Your task to perform on an android device: Go to CNN.com Image 0: 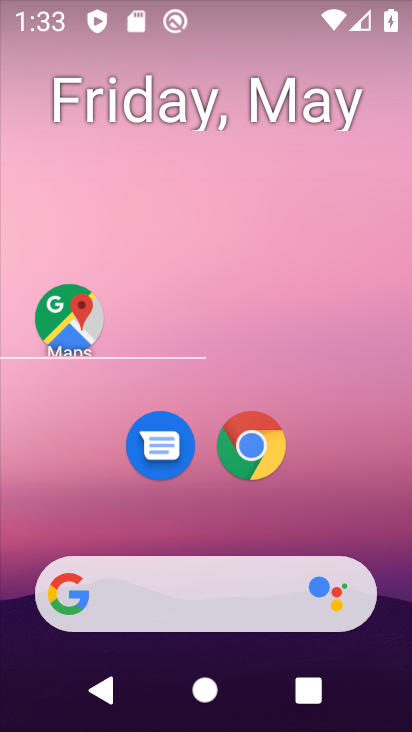
Step 0: press home button
Your task to perform on an android device: Go to CNN.com Image 1: 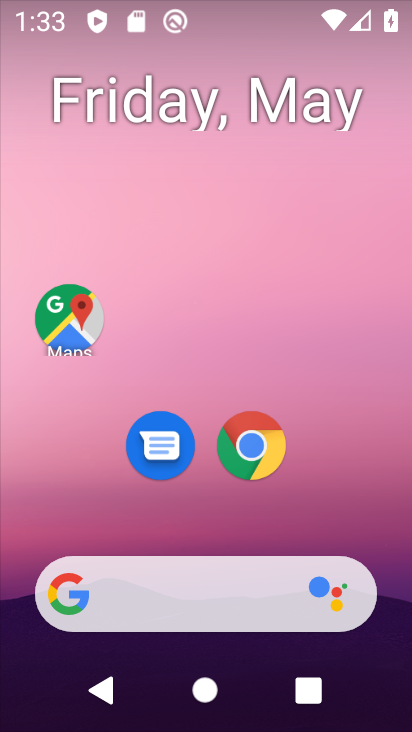
Step 1: click (248, 444)
Your task to perform on an android device: Go to CNN.com Image 2: 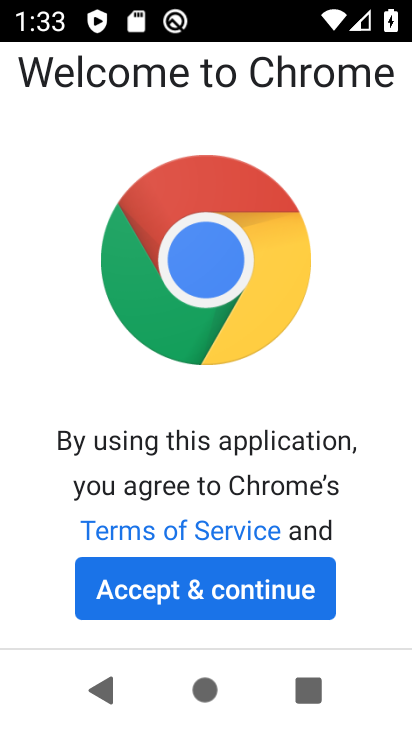
Step 2: click (189, 587)
Your task to perform on an android device: Go to CNN.com Image 3: 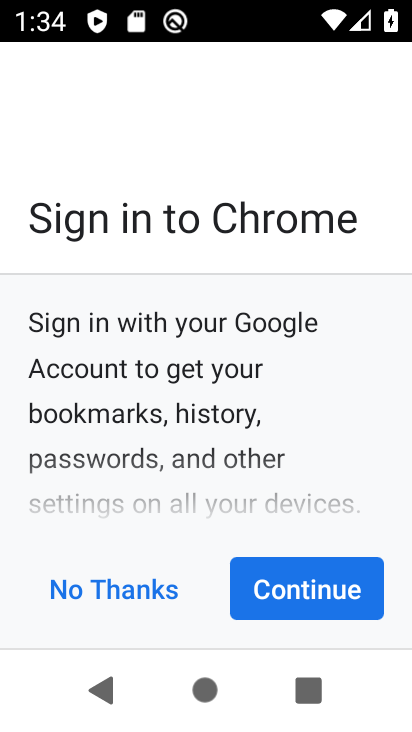
Step 3: click (340, 595)
Your task to perform on an android device: Go to CNN.com Image 4: 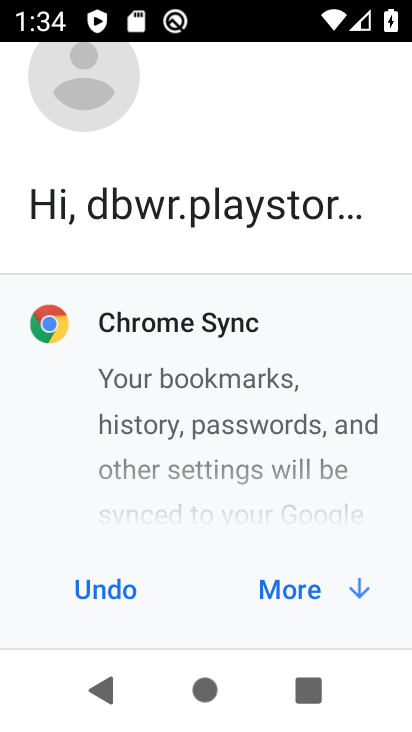
Step 4: click (305, 581)
Your task to perform on an android device: Go to CNN.com Image 5: 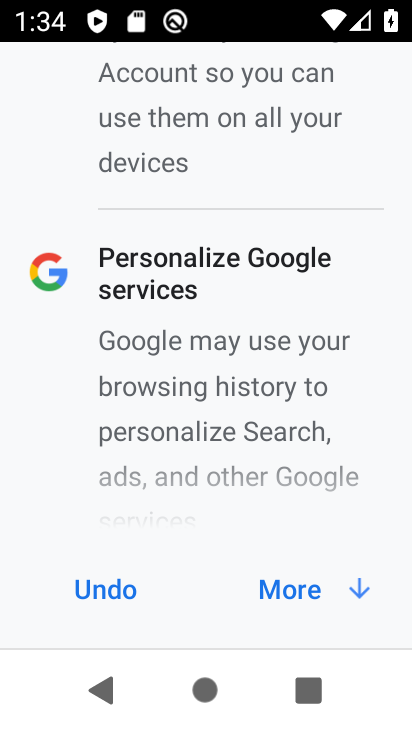
Step 5: click (303, 585)
Your task to perform on an android device: Go to CNN.com Image 6: 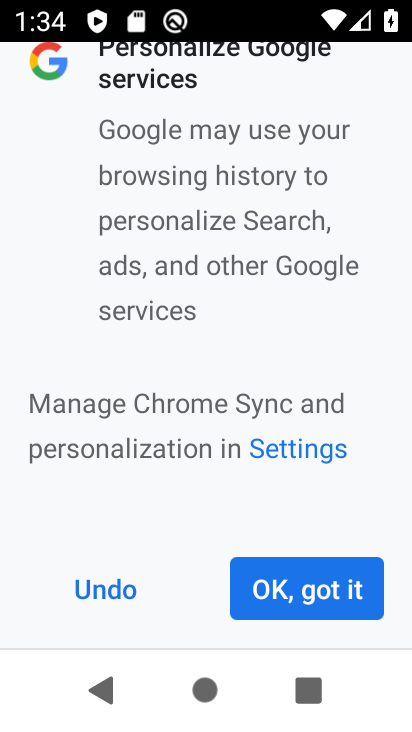
Step 6: click (310, 594)
Your task to perform on an android device: Go to CNN.com Image 7: 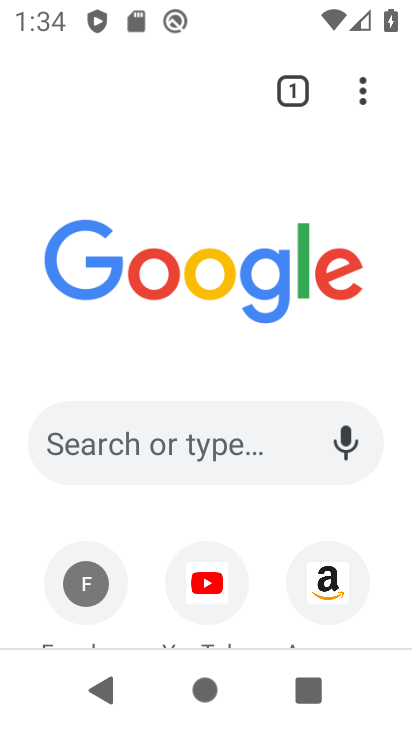
Step 7: click (141, 436)
Your task to perform on an android device: Go to CNN.com Image 8: 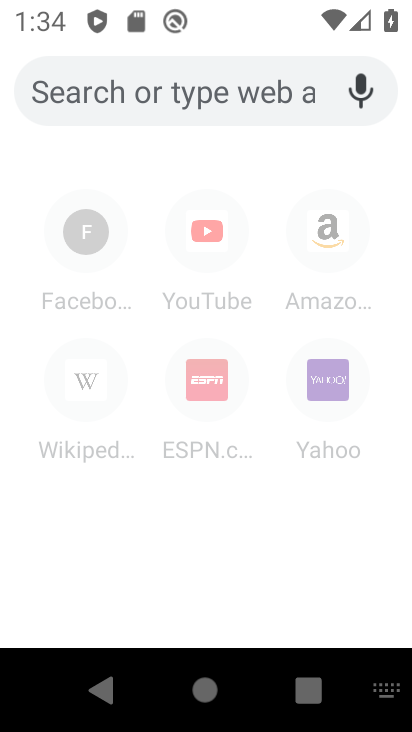
Step 8: type "cnn.com"
Your task to perform on an android device: Go to CNN.com Image 9: 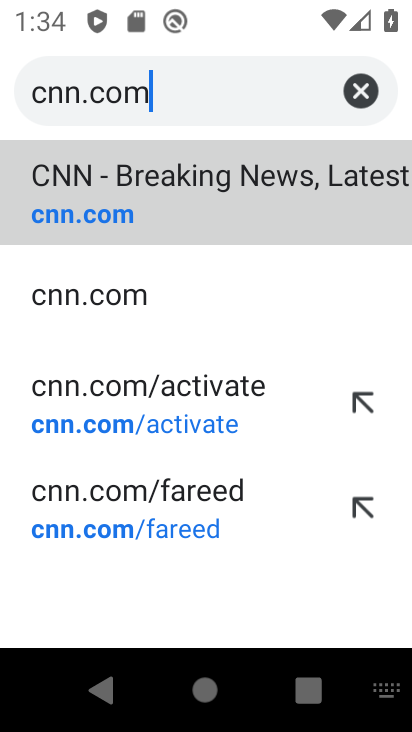
Step 9: click (155, 203)
Your task to perform on an android device: Go to CNN.com Image 10: 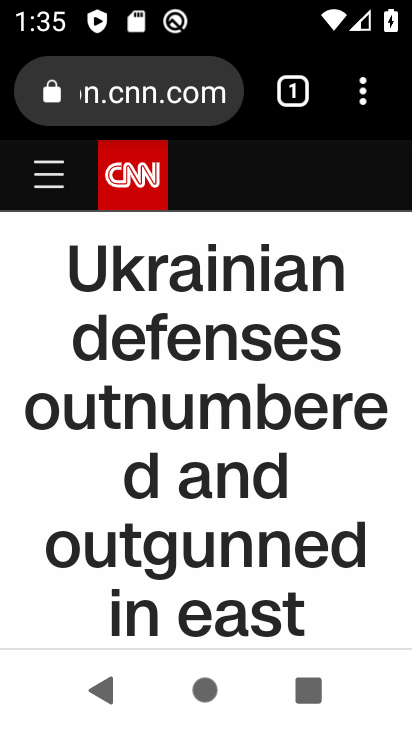
Step 10: drag from (197, 584) to (212, 177)
Your task to perform on an android device: Go to CNN.com Image 11: 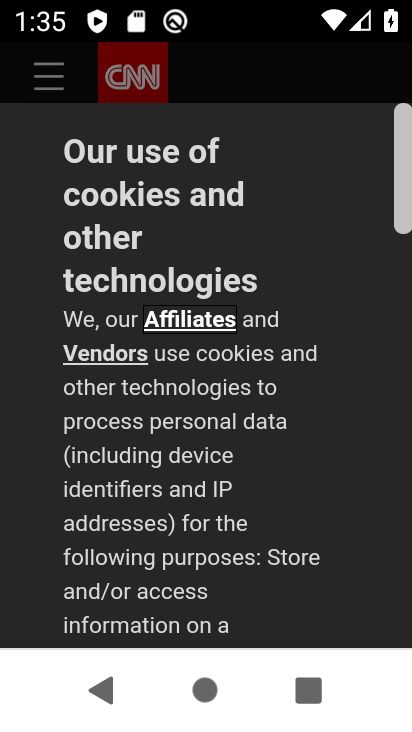
Step 11: drag from (190, 593) to (217, 179)
Your task to perform on an android device: Go to CNN.com Image 12: 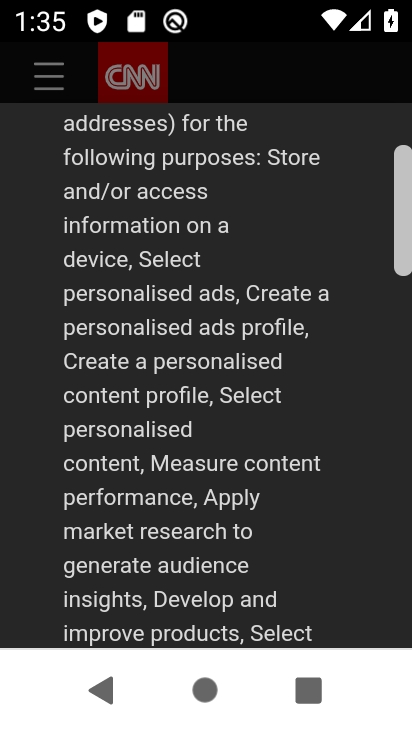
Step 12: drag from (210, 604) to (232, 192)
Your task to perform on an android device: Go to CNN.com Image 13: 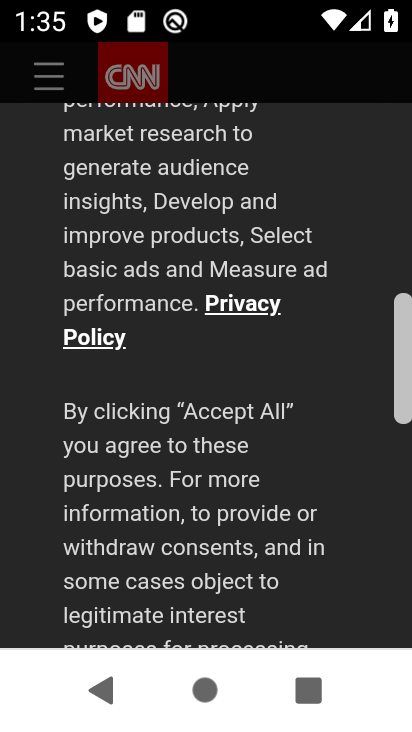
Step 13: drag from (214, 599) to (229, 186)
Your task to perform on an android device: Go to CNN.com Image 14: 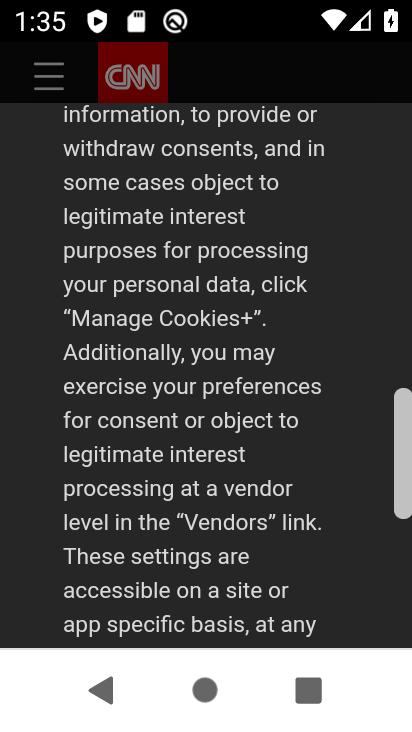
Step 14: drag from (259, 606) to (277, 104)
Your task to perform on an android device: Go to CNN.com Image 15: 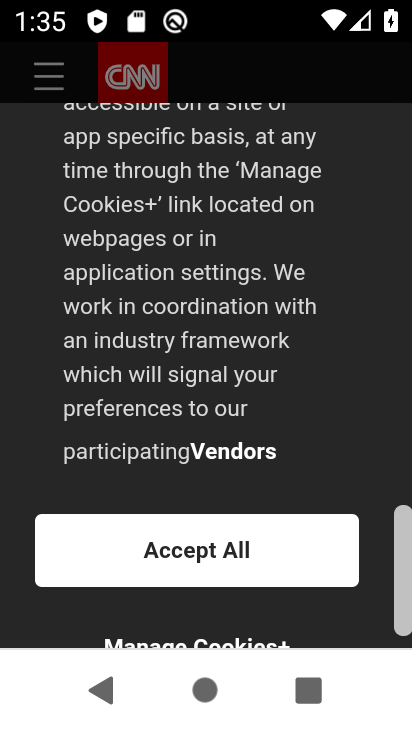
Step 15: click (216, 560)
Your task to perform on an android device: Go to CNN.com Image 16: 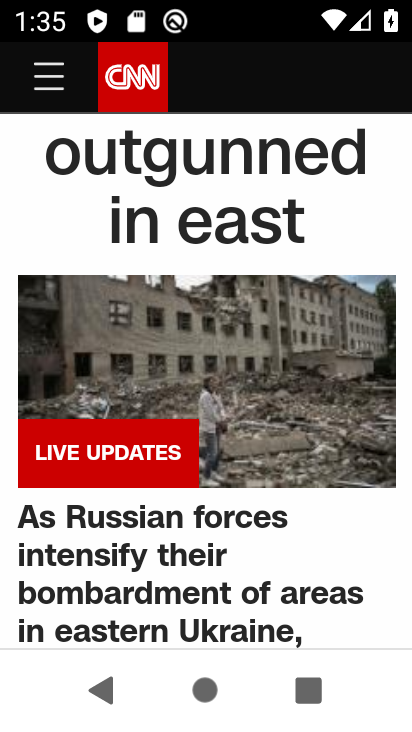
Step 16: task complete